Your task to perform on an android device: add a label to a message in the gmail app Image 0: 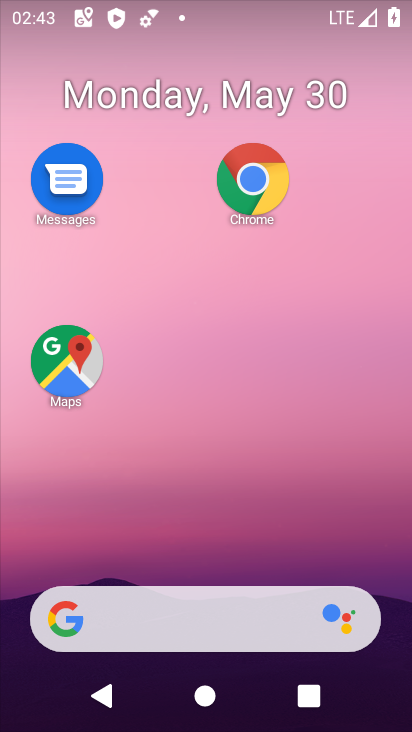
Step 0: drag from (215, 545) to (187, 21)
Your task to perform on an android device: add a label to a message in the gmail app Image 1: 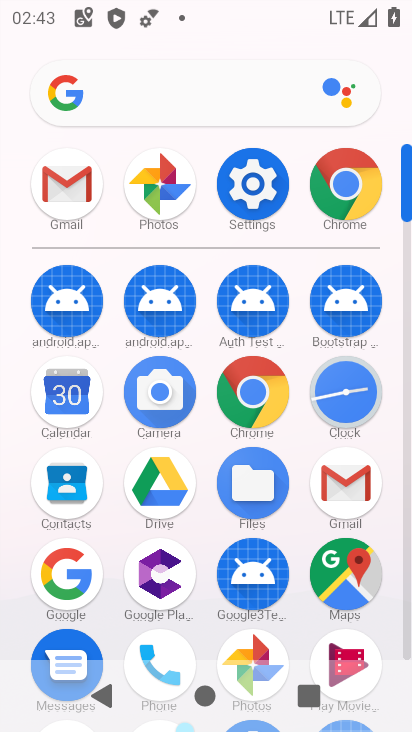
Step 1: click (348, 485)
Your task to perform on an android device: add a label to a message in the gmail app Image 2: 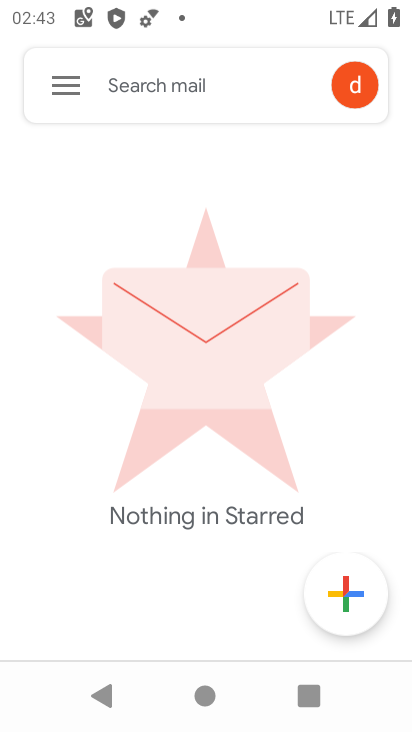
Step 2: click (66, 84)
Your task to perform on an android device: add a label to a message in the gmail app Image 3: 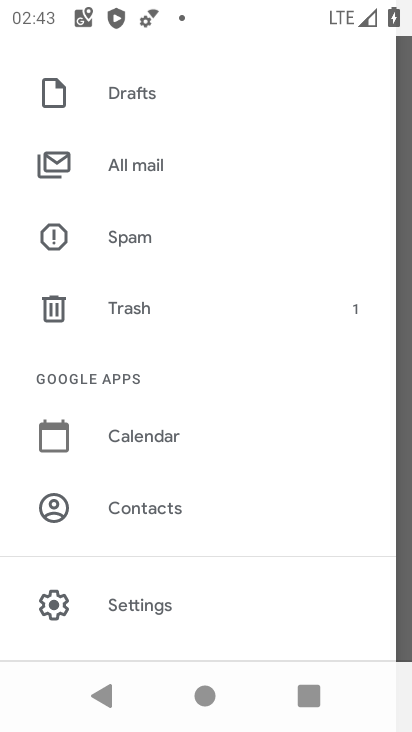
Step 3: click (140, 175)
Your task to perform on an android device: add a label to a message in the gmail app Image 4: 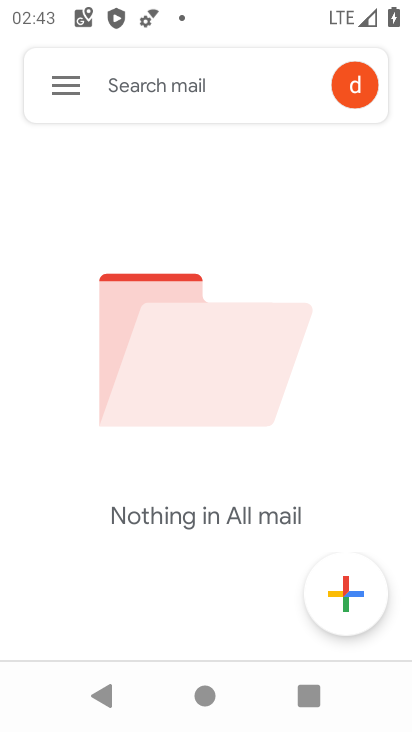
Step 4: task complete